Your task to perform on an android device: change the clock display to digital Image 0: 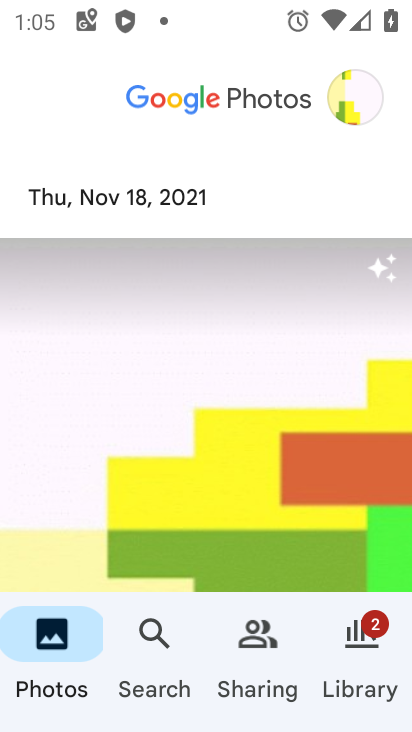
Step 0: press home button
Your task to perform on an android device: change the clock display to digital Image 1: 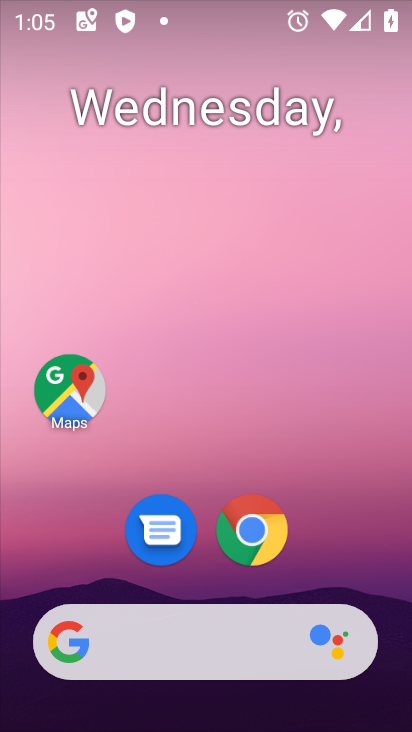
Step 1: drag from (197, 555) to (245, 100)
Your task to perform on an android device: change the clock display to digital Image 2: 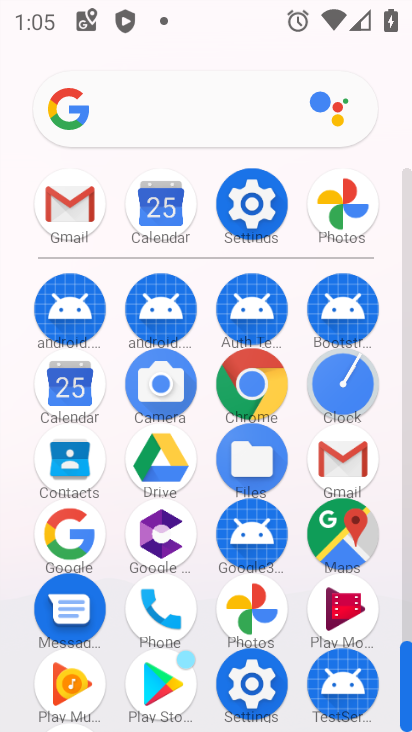
Step 2: click (254, 201)
Your task to perform on an android device: change the clock display to digital Image 3: 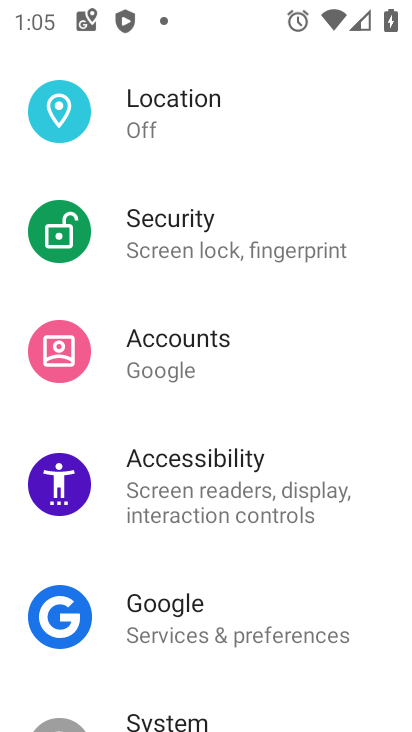
Step 3: press home button
Your task to perform on an android device: change the clock display to digital Image 4: 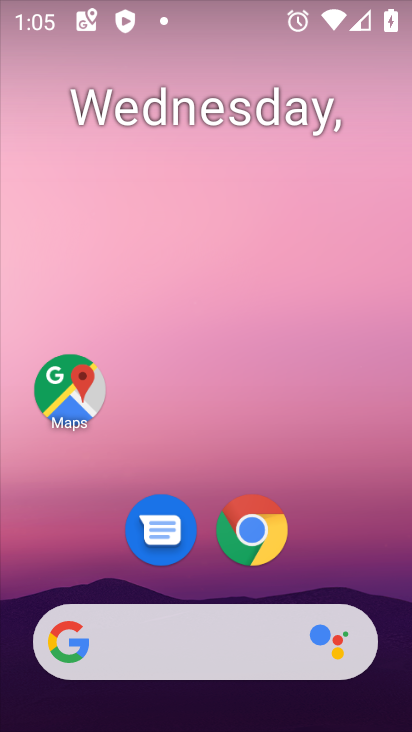
Step 4: drag from (201, 584) to (244, 182)
Your task to perform on an android device: change the clock display to digital Image 5: 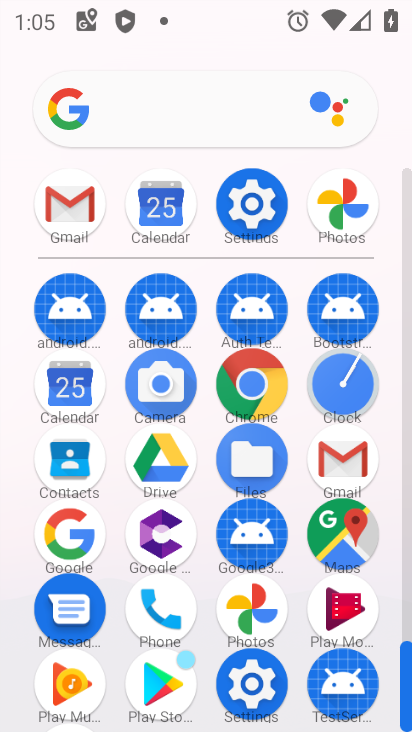
Step 5: click (349, 382)
Your task to perform on an android device: change the clock display to digital Image 6: 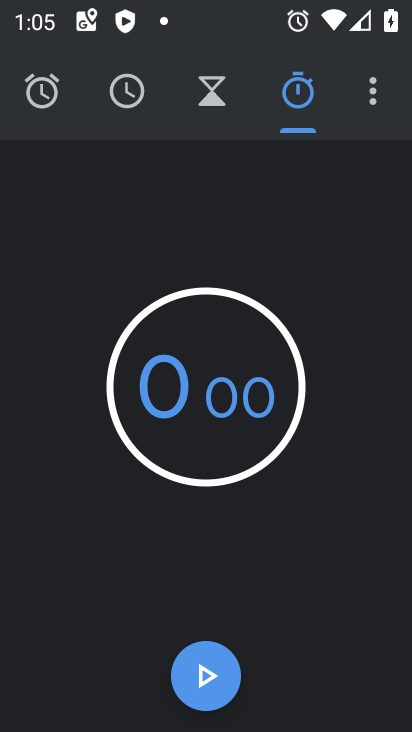
Step 6: click (372, 98)
Your task to perform on an android device: change the clock display to digital Image 7: 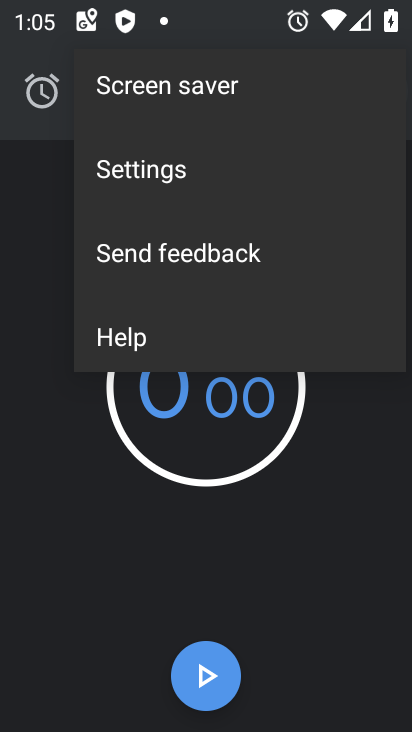
Step 7: click (148, 168)
Your task to perform on an android device: change the clock display to digital Image 8: 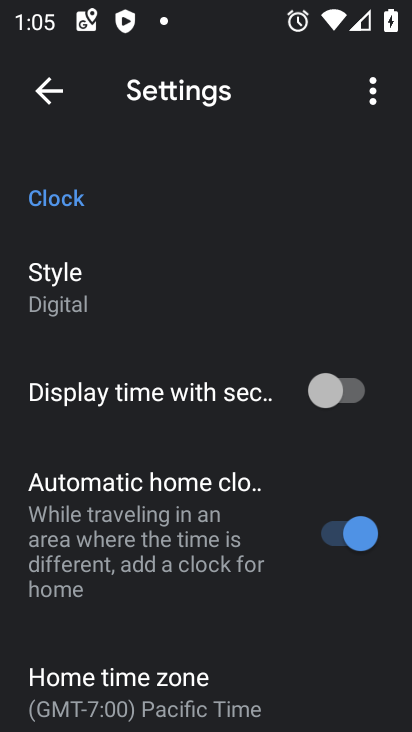
Step 8: click (47, 286)
Your task to perform on an android device: change the clock display to digital Image 9: 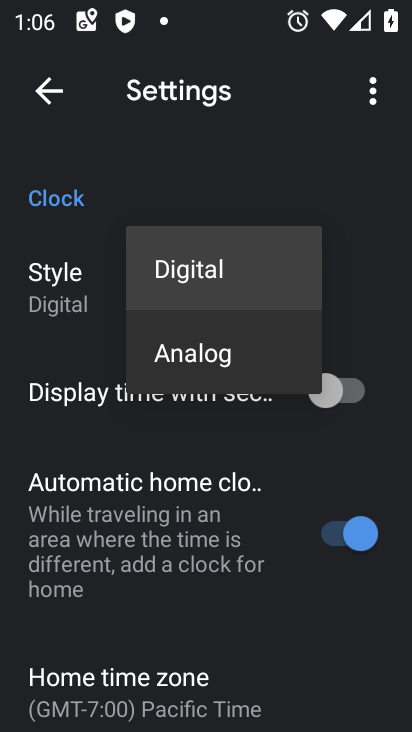
Step 9: task complete